Your task to perform on an android device: check android version Image 0: 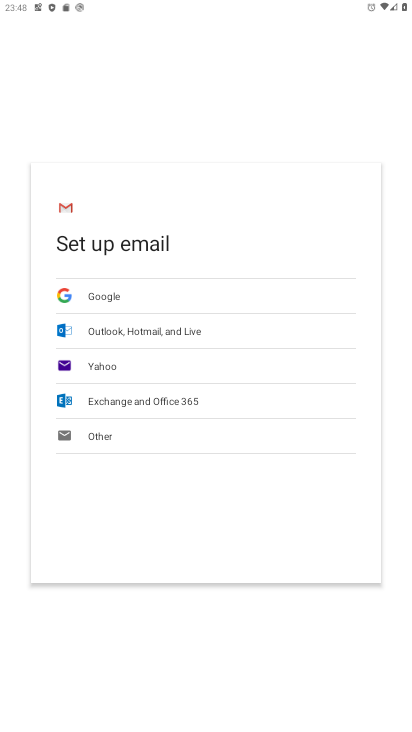
Step 0: press home button
Your task to perform on an android device: check android version Image 1: 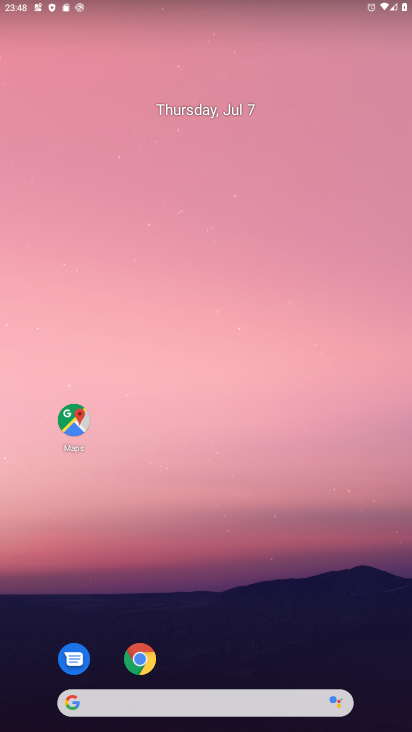
Step 1: click (73, 703)
Your task to perform on an android device: check android version Image 2: 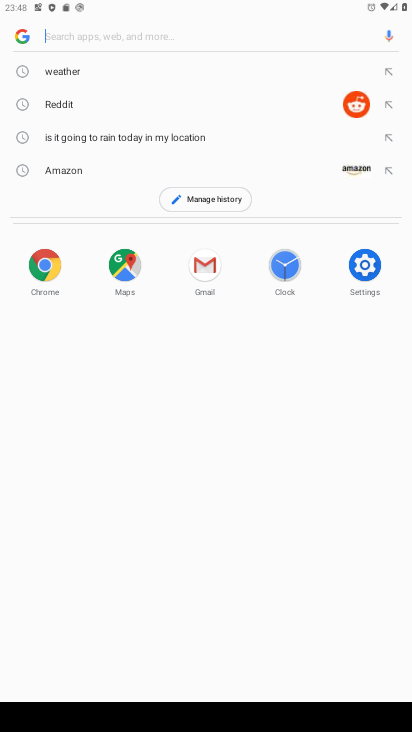
Step 2: click (26, 36)
Your task to perform on an android device: check android version Image 3: 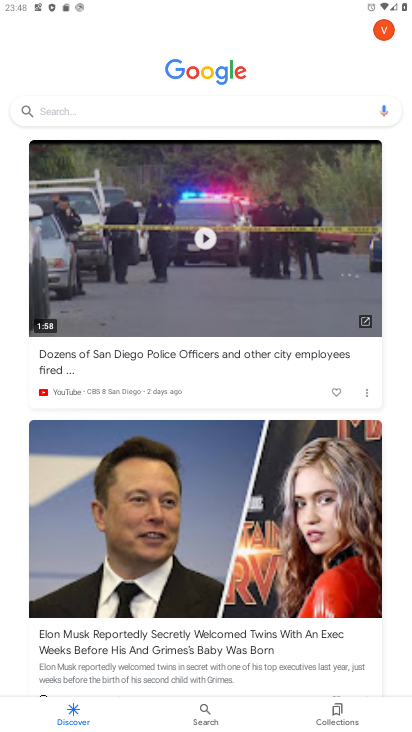
Step 3: click (381, 34)
Your task to perform on an android device: check android version Image 4: 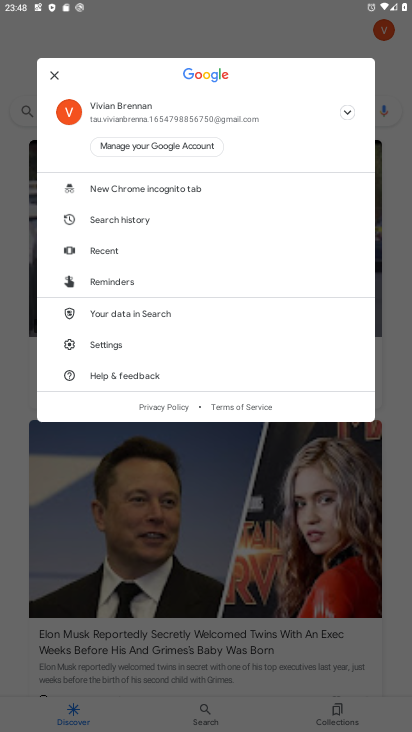
Step 4: click (100, 348)
Your task to perform on an android device: check android version Image 5: 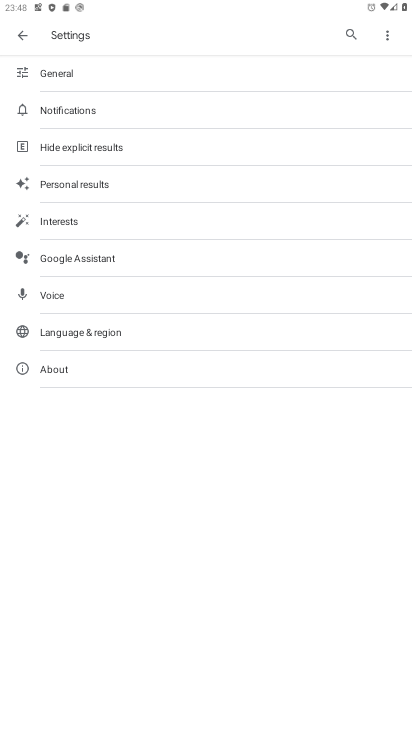
Step 5: click (78, 366)
Your task to perform on an android device: check android version Image 6: 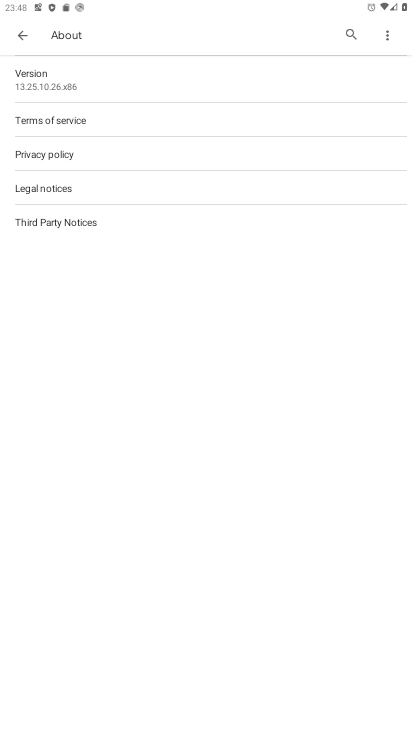
Step 6: click (311, 83)
Your task to perform on an android device: check android version Image 7: 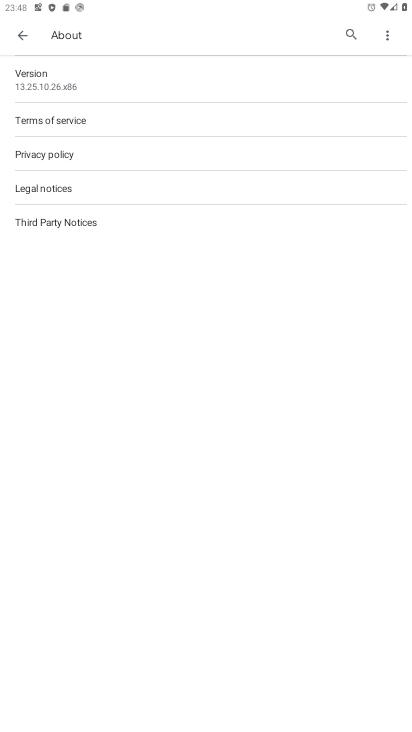
Step 7: task complete